Your task to perform on an android device: open a bookmark in the chrome app Image 0: 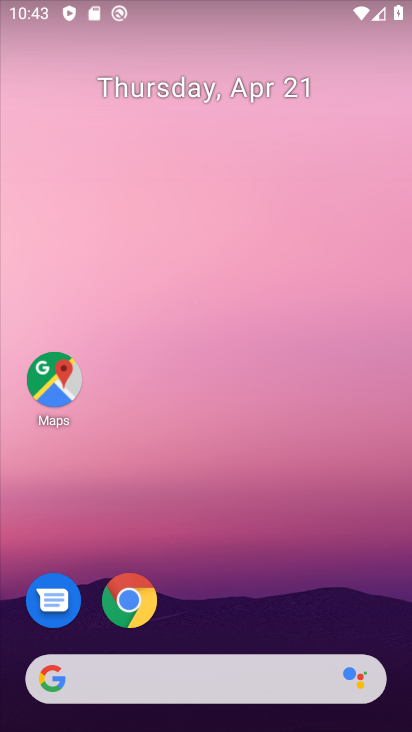
Step 0: drag from (287, 571) to (348, 92)
Your task to perform on an android device: open a bookmark in the chrome app Image 1: 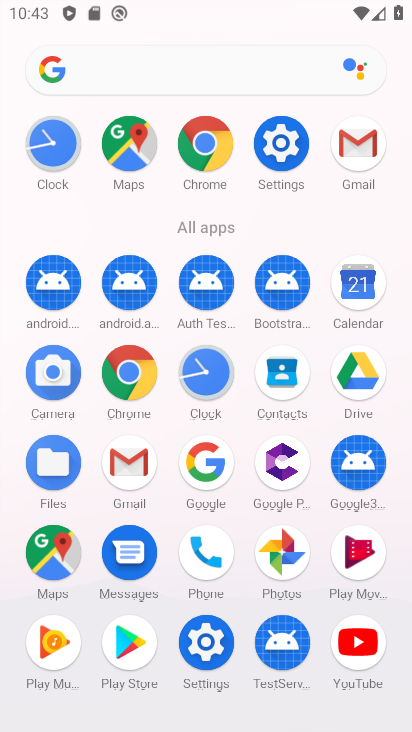
Step 1: click (202, 161)
Your task to perform on an android device: open a bookmark in the chrome app Image 2: 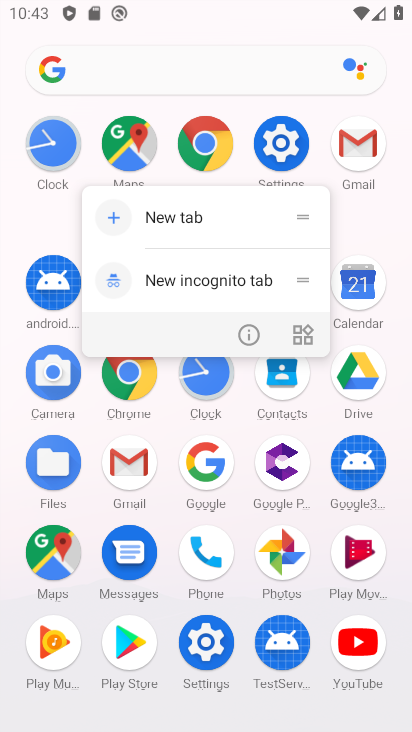
Step 2: click (202, 161)
Your task to perform on an android device: open a bookmark in the chrome app Image 3: 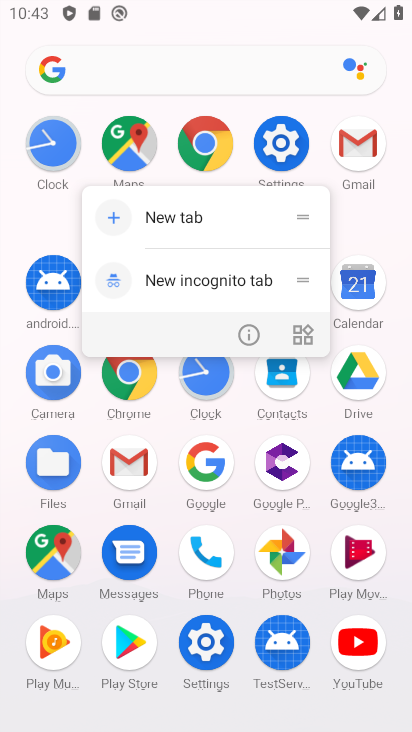
Step 3: click (202, 160)
Your task to perform on an android device: open a bookmark in the chrome app Image 4: 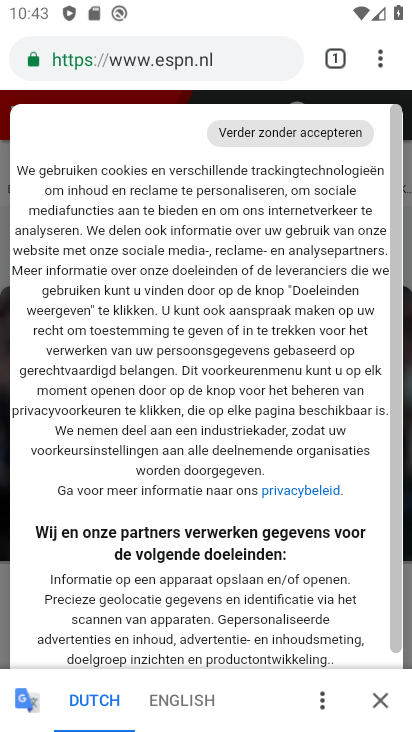
Step 4: task complete